Your task to perform on an android device: Open Google Chrome Image 0: 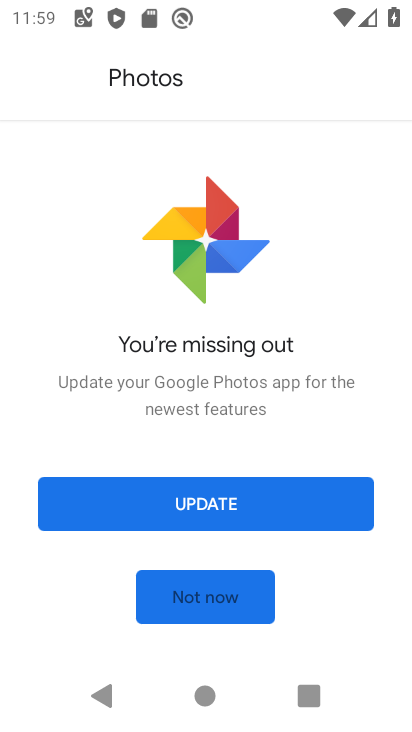
Step 0: press home button
Your task to perform on an android device: Open Google Chrome Image 1: 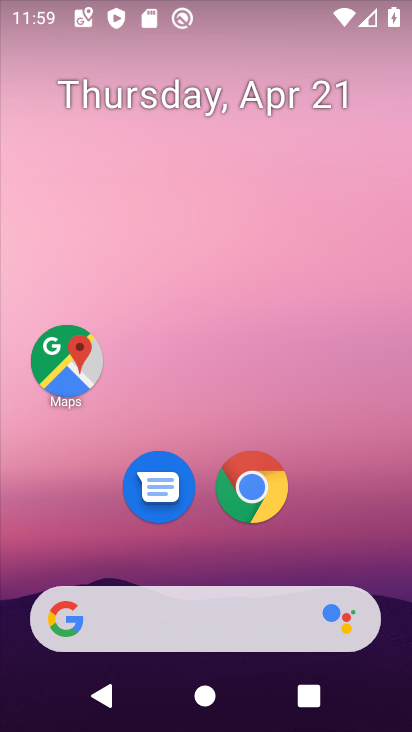
Step 1: click (256, 487)
Your task to perform on an android device: Open Google Chrome Image 2: 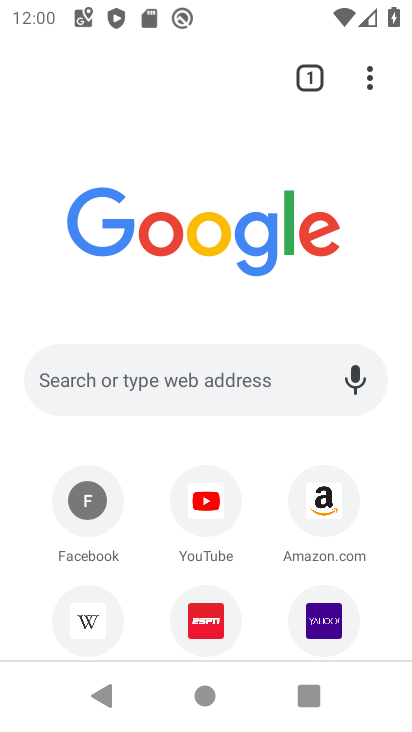
Step 2: task complete